Your task to perform on an android device: open app "Lyft - Rideshare, Bikes, Scooters & Transit" Image 0: 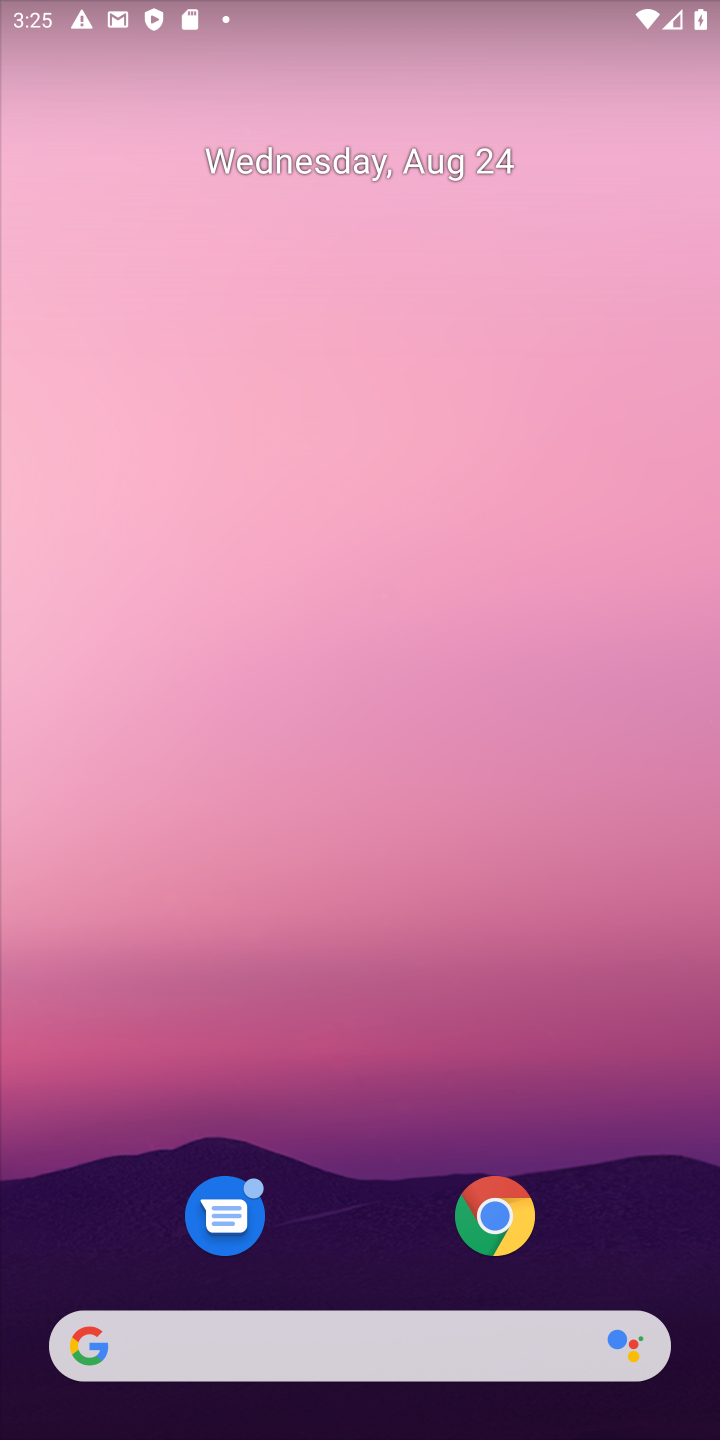
Step 0: drag from (345, 955) to (495, 116)
Your task to perform on an android device: open app "Lyft - Rideshare, Bikes, Scooters & Transit" Image 1: 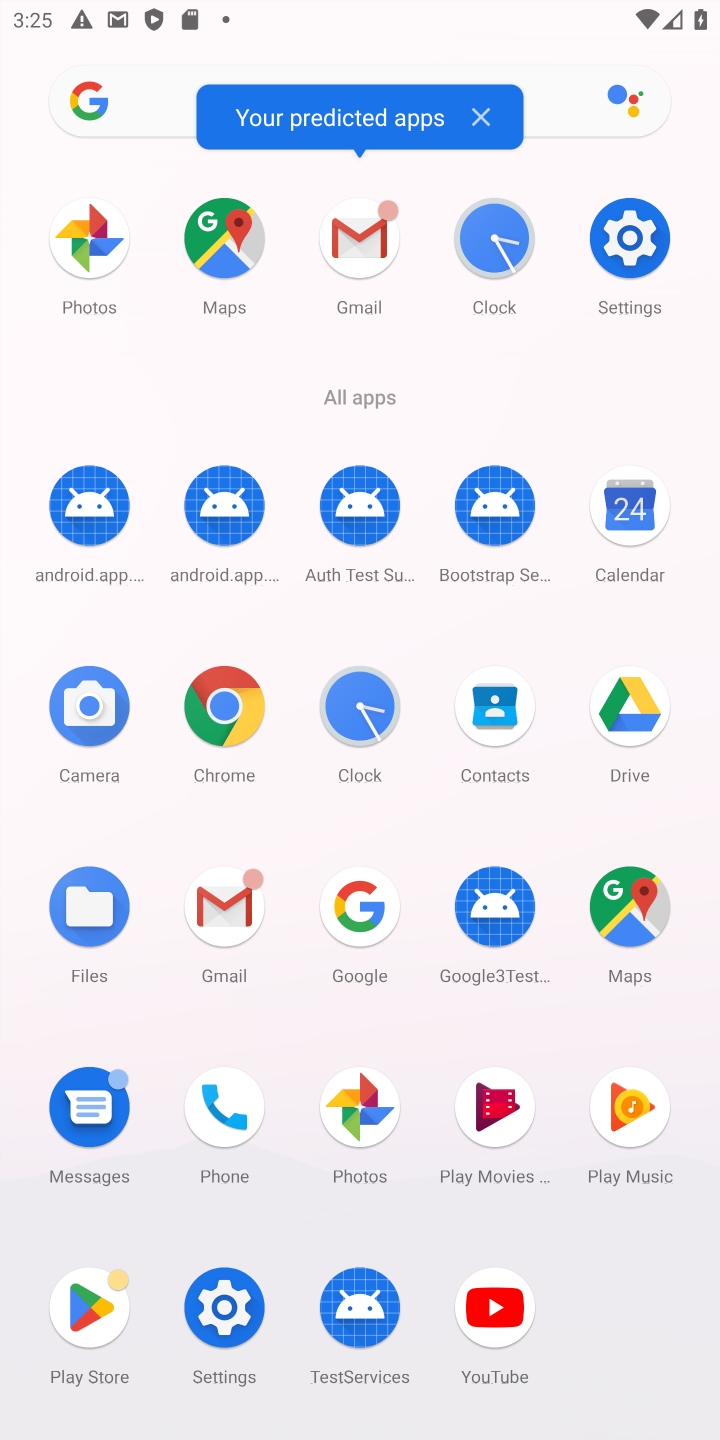
Step 1: click (89, 1313)
Your task to perform on an android device: open app "Lyft - Rideshare, Bikes, Scooters & Transit" Image 2: 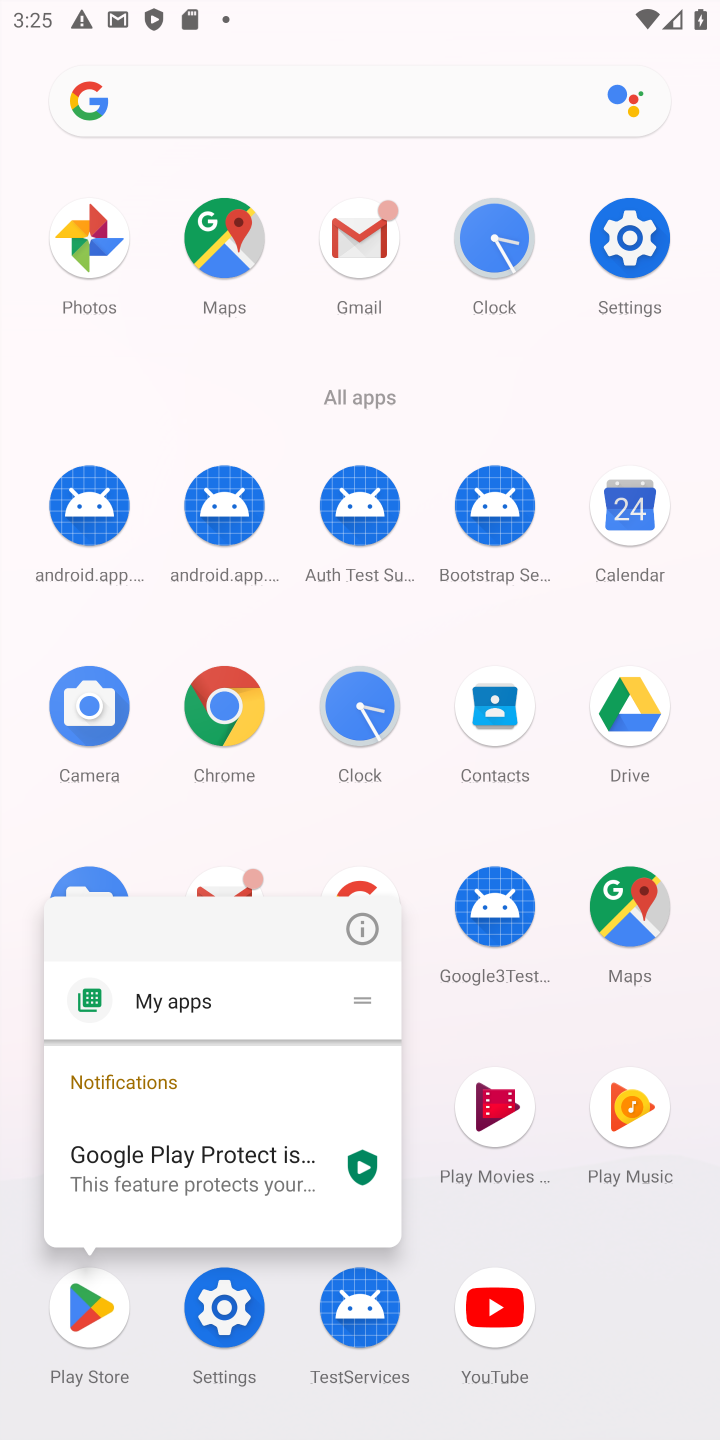
Step 2: click (93, 1298)
Your task to perform on an android device: open app "Lyft - Rideshare, Bikes, Scooters & Transit" Image 3: 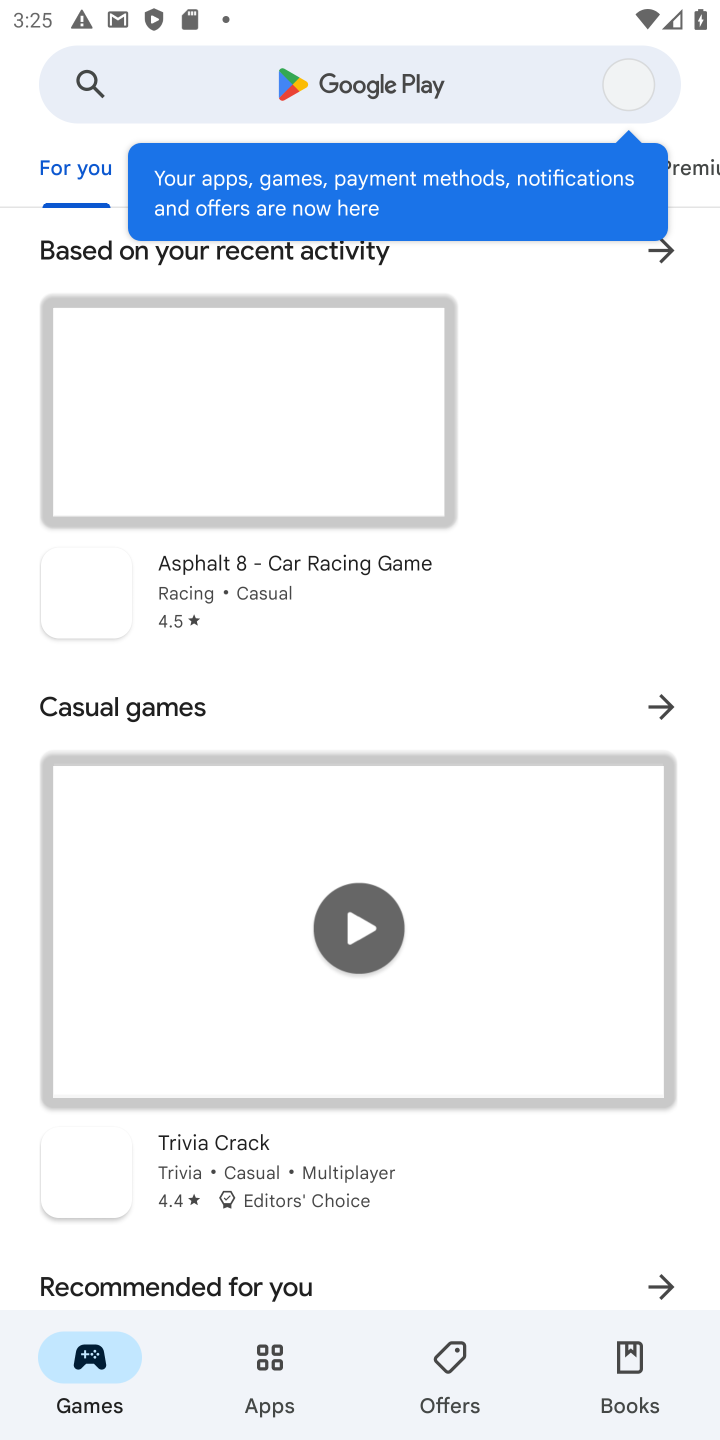
Step 3: click (390, 72)
Your task to perform on an android device: open app "Lyft - Rideshare, Bikes, Scooters & Transit" Image 4: 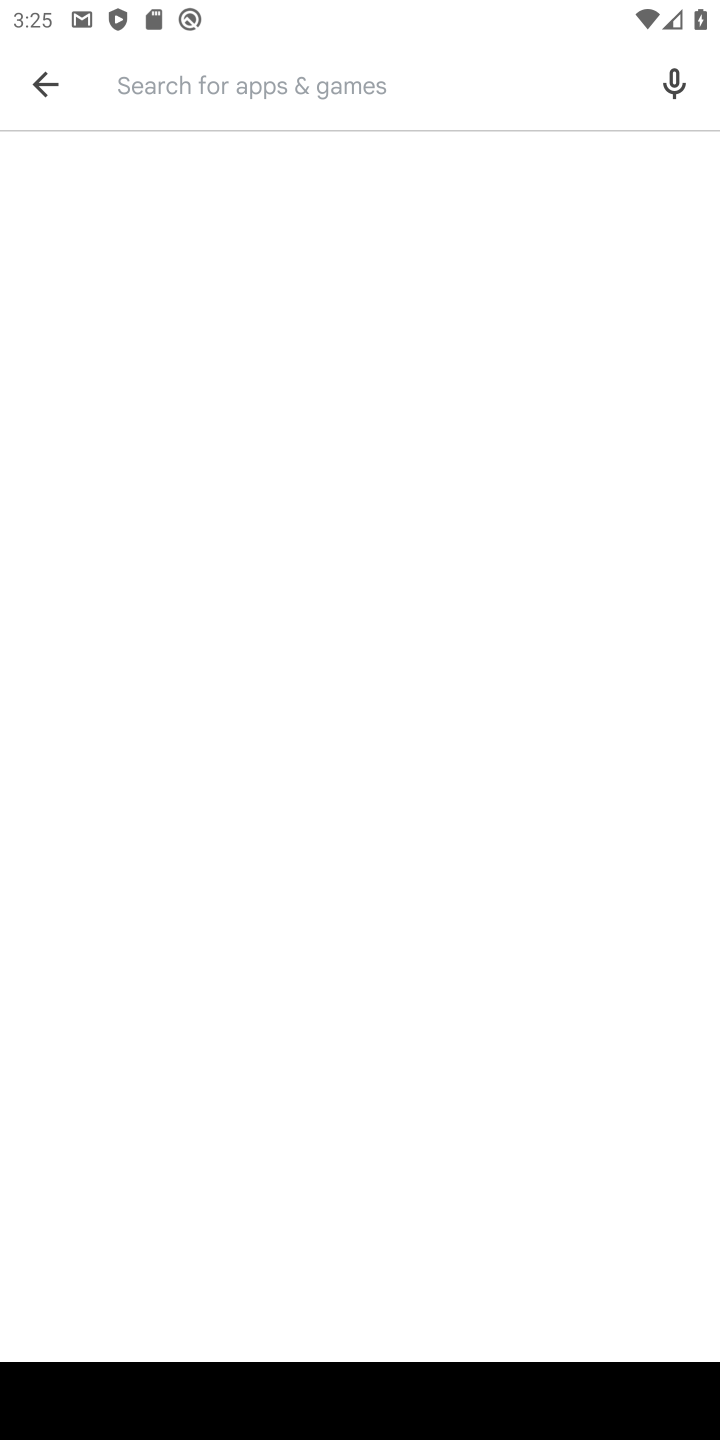
Step 4: click (207, 110)
Your task to perform on an android device: open app "Lyft - Rideshare, Bikes, Scooters & Transit" Image 5: 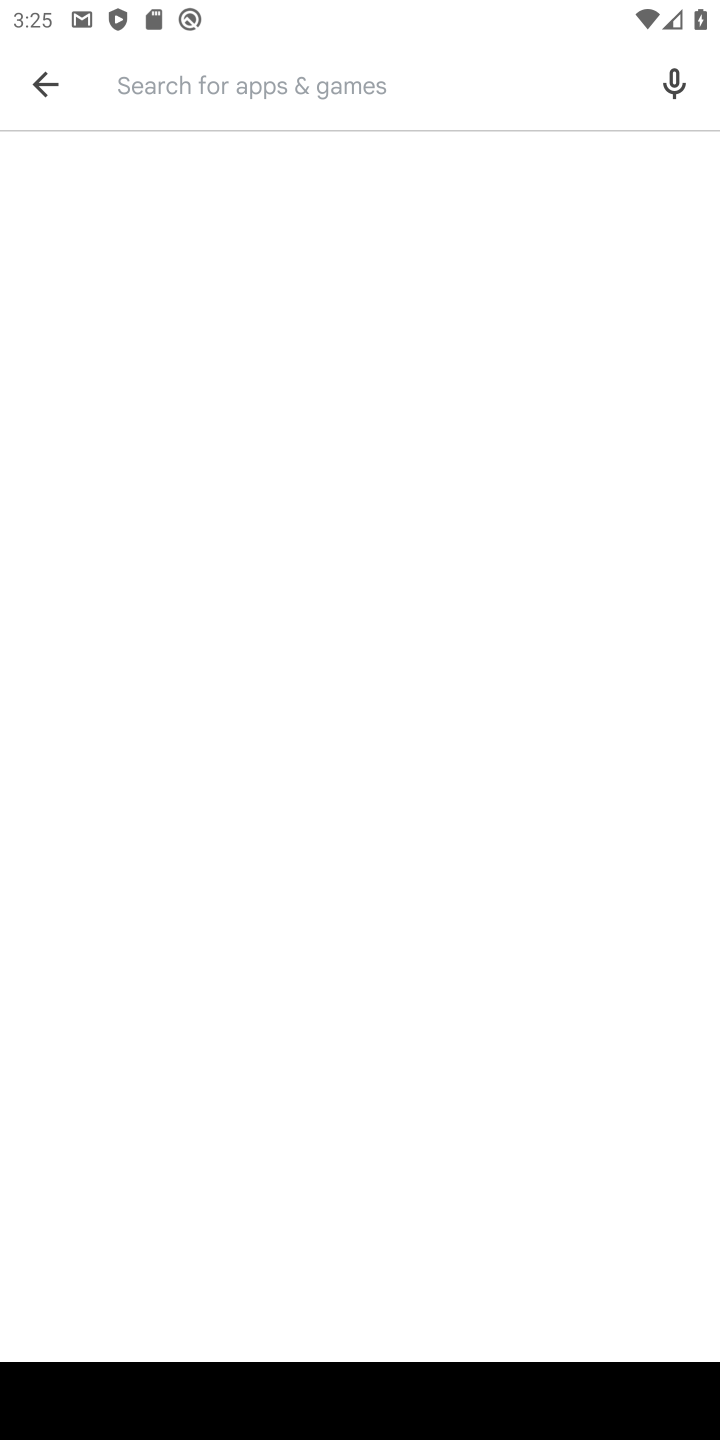
Step 5: type "Lyft"
Your task to perform on an android device: open app "Lyft - Rideshare, Bikes, Scooters & Transit" Image 6: 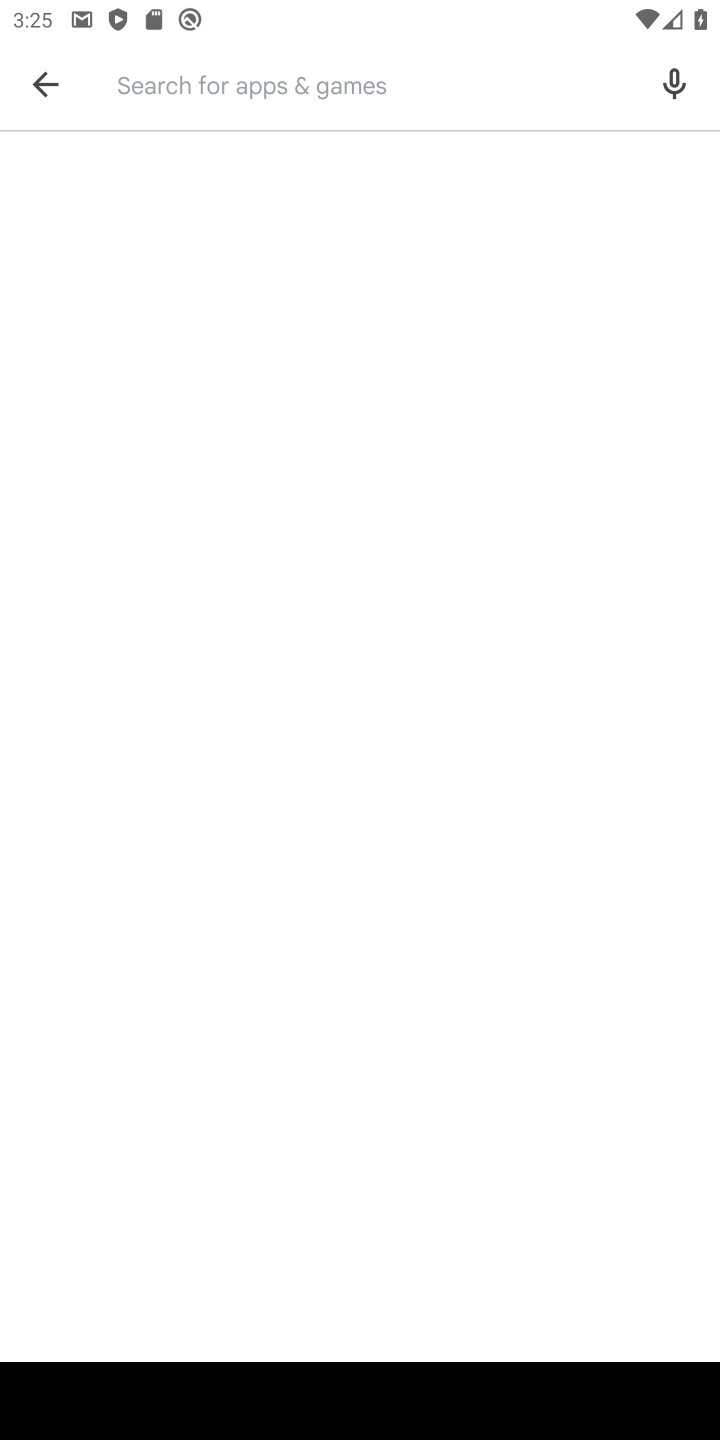
Step 6: click (430, 991)
Your task to perform on an android device: open app "Lyft - Rideshare, Bikes, Scooters & Transit" Image 7: 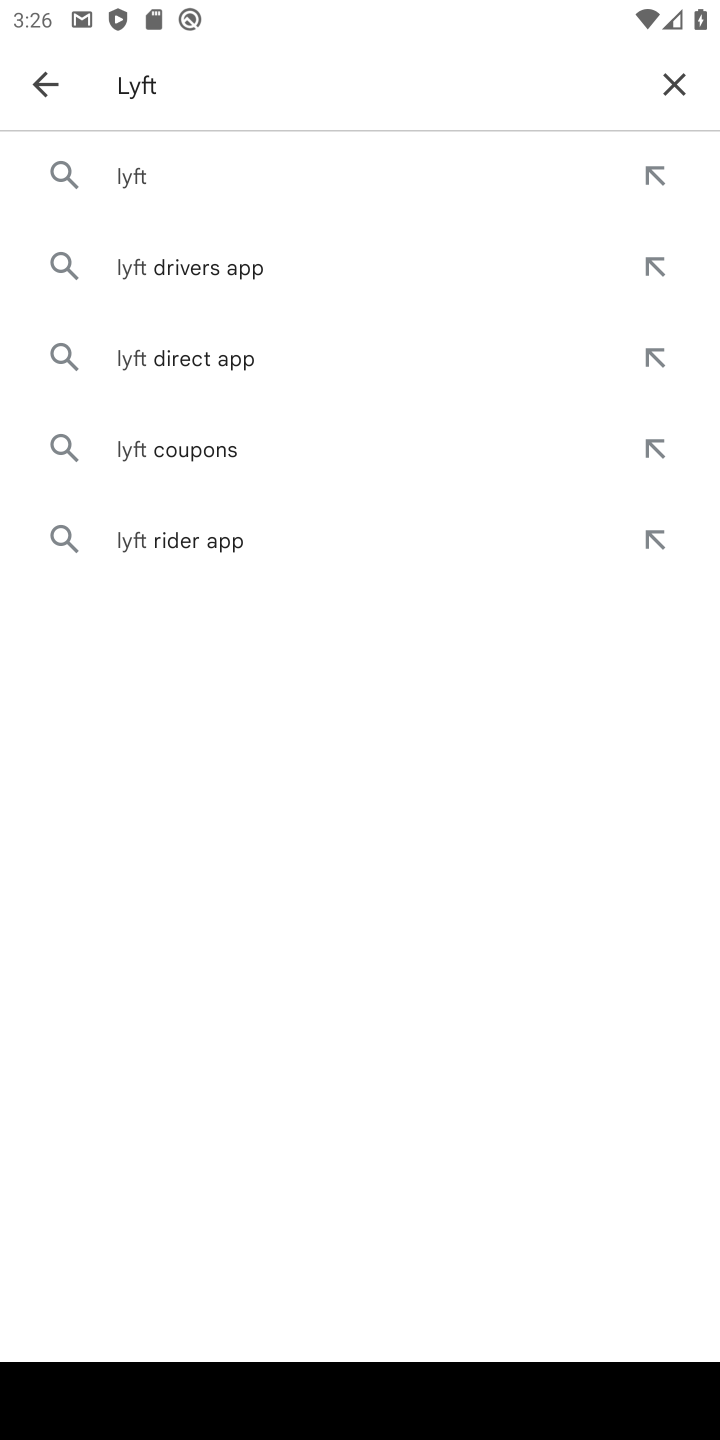
Step 7: click (121, 169)
Your task to perform on an android device: open app "Lyft - Rideshare, Bikes, Scooters & Transit" Image 8: 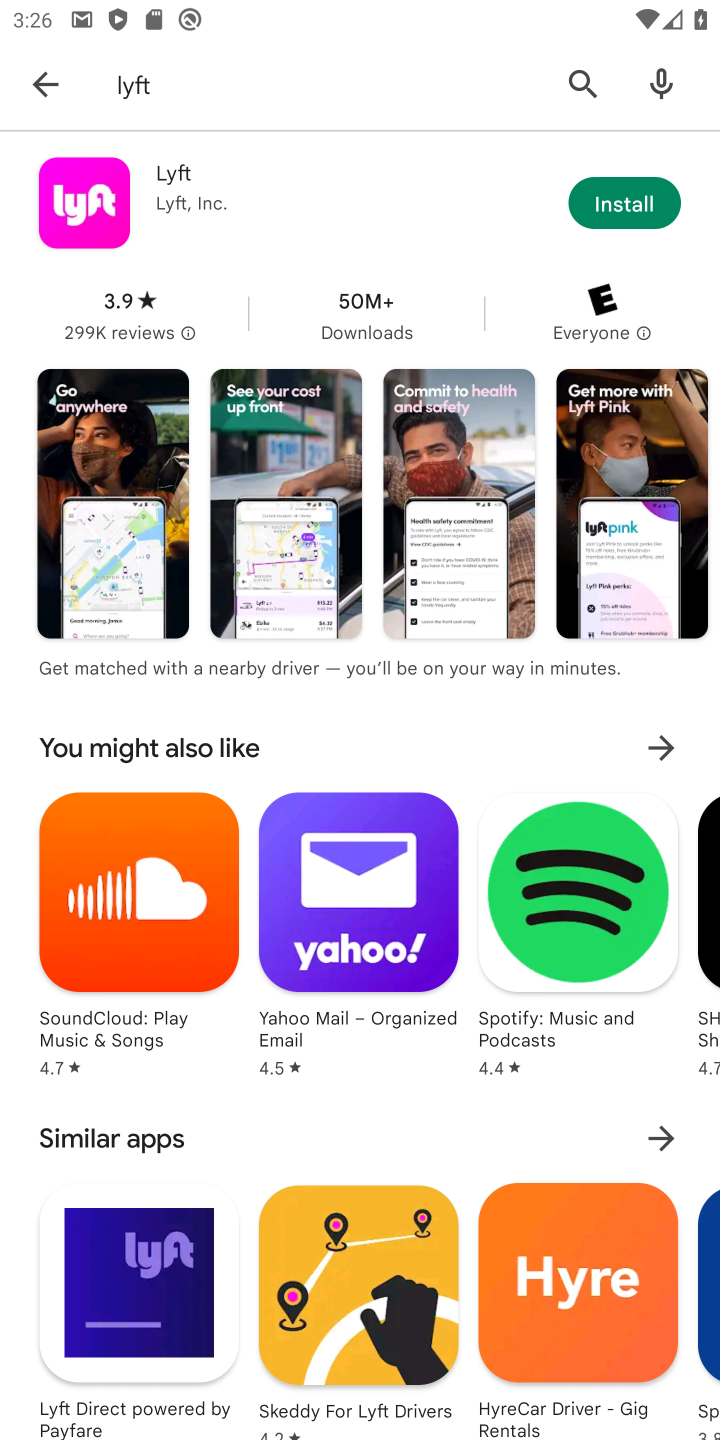
Step 8: task complete